Your task to perform on an android device: install app "Pandora - Music & Podcasts" Image 0: 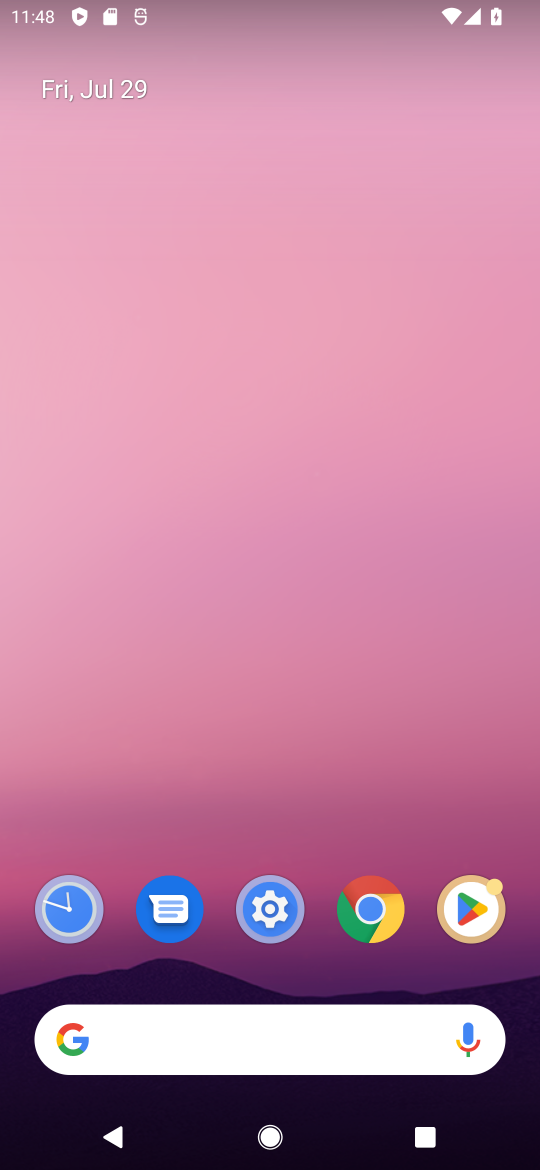
Step 0: drag from (341, 735) to (402, 210)
Your task to perform on an android device: install app "Pandora - Music & Podcasts" Image 1: 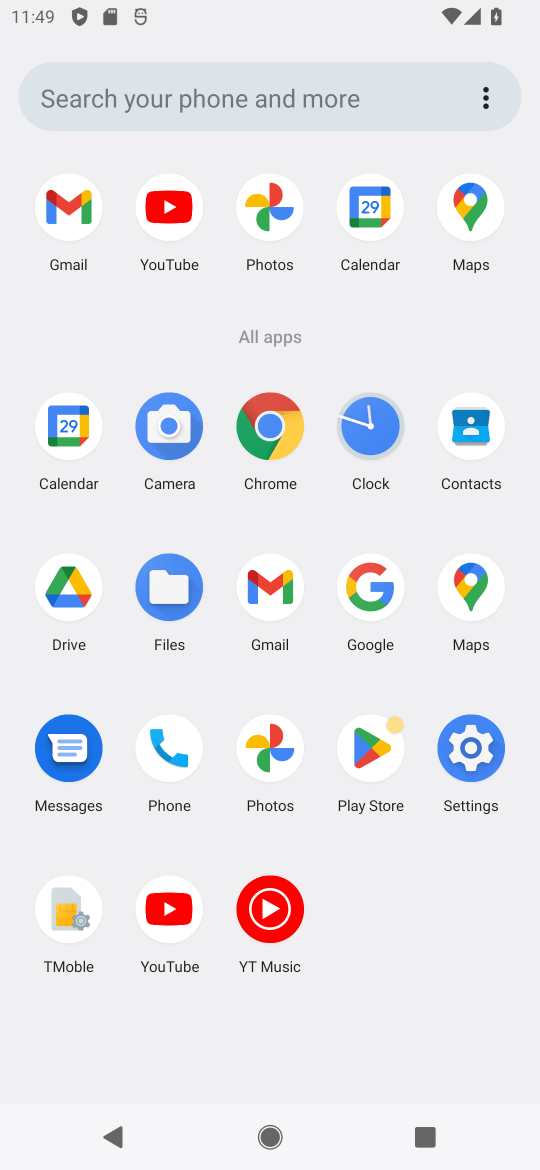
Step 1: click (371, 735)
Your task to perform on an android device: install app "Pandora - Music & Podcasts" Image 2: 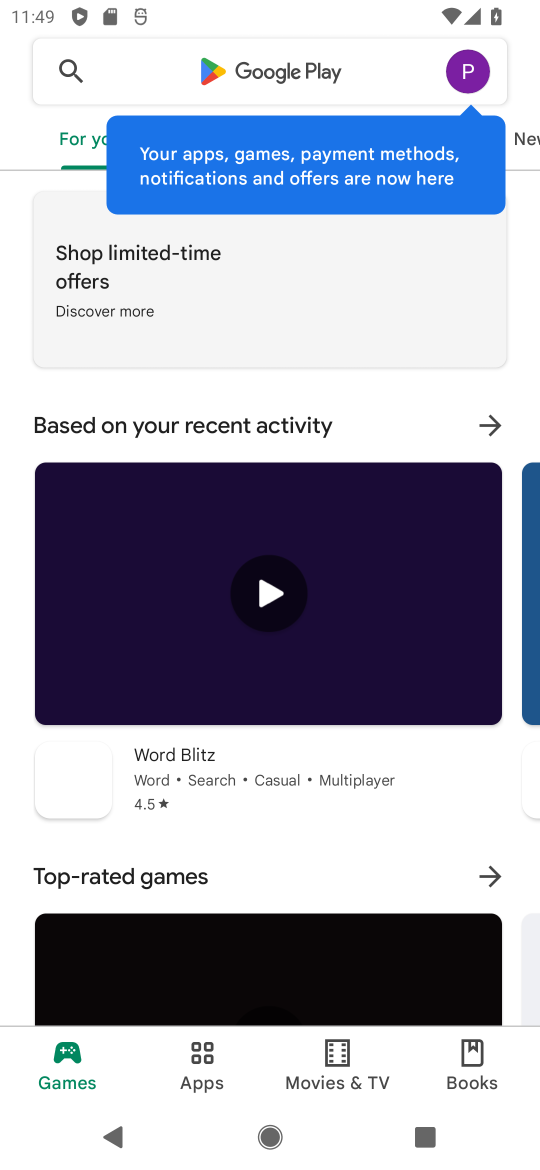
Step 2: click (159, 54)
Your task to perform on an android device: install app "Pandora - Music & Podcasts" Image 3: 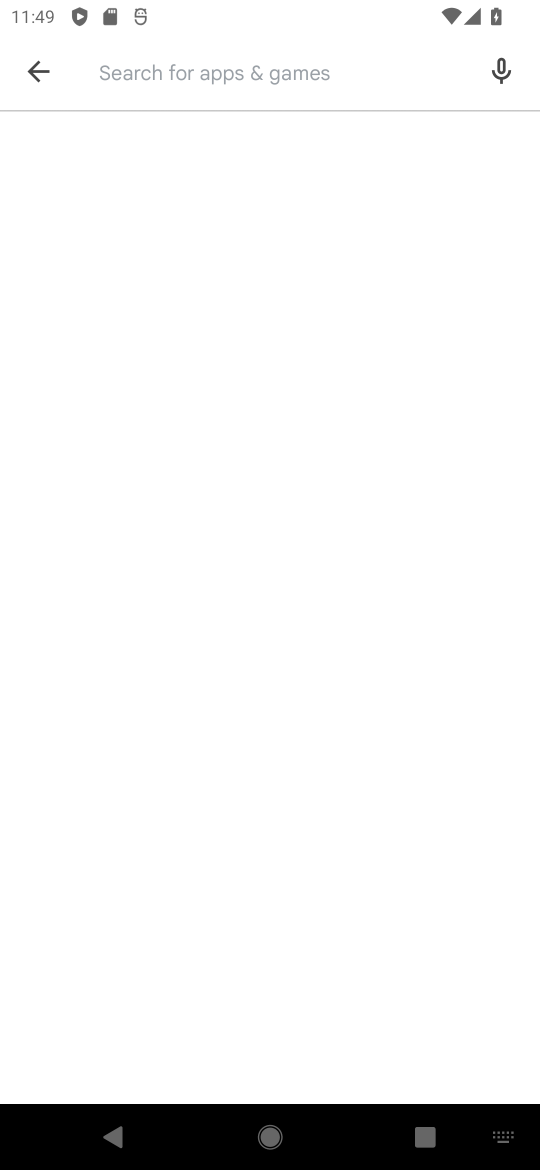
Step 3: type "Pandora - Music & Podcasts"
Your task to perform on an android device: install app "Pandora - Music & Podcasts" Image 4: 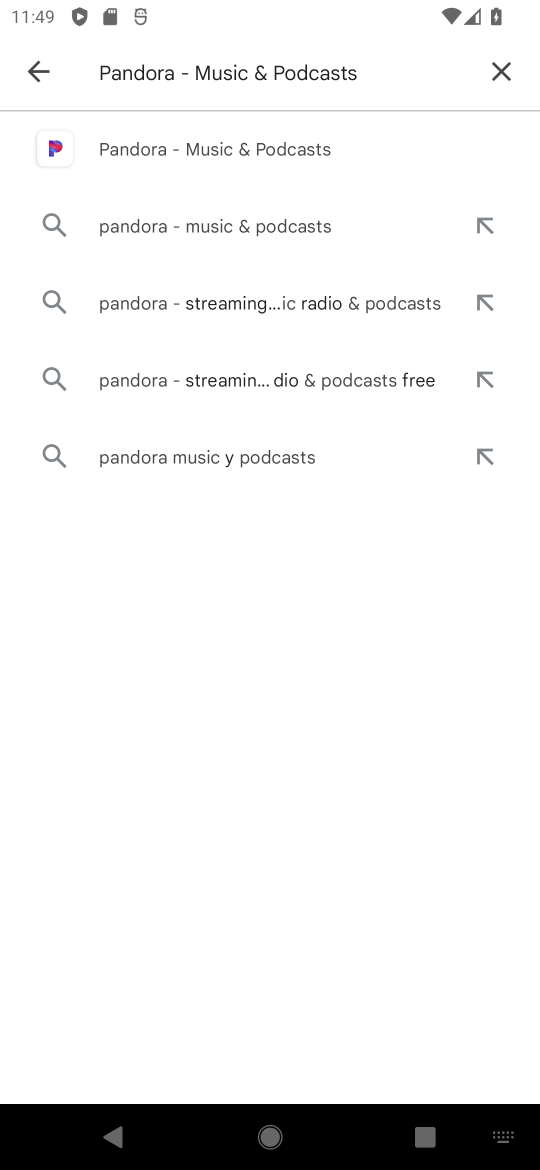
Step 4: click (226, 155)
Your task to perform on an android device: install app "Pandora - Music & Podcasts" Image 5: 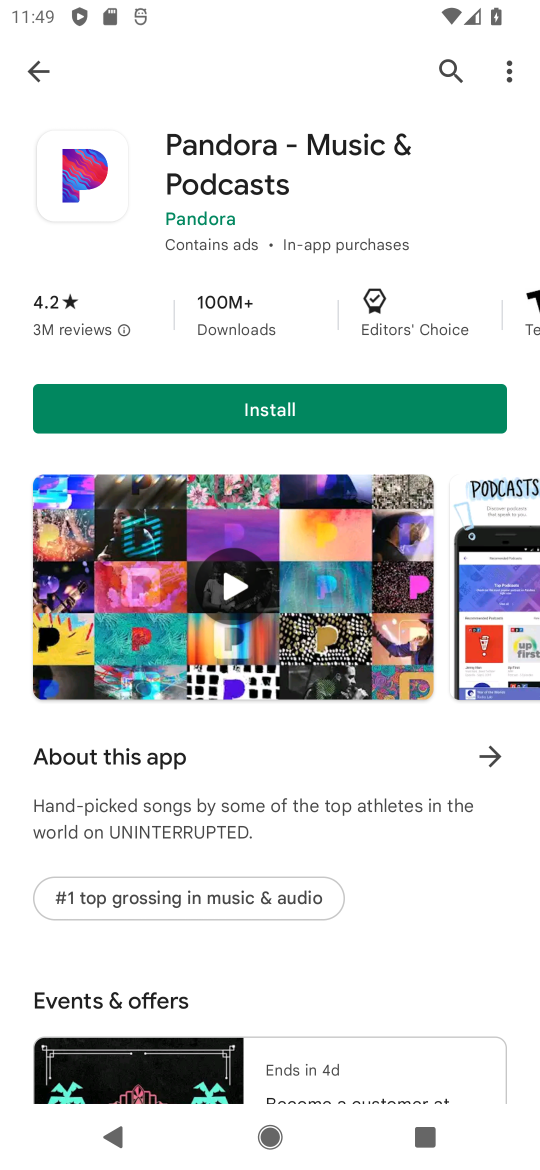
Step 5: click (272, 407)
Your task to perform on an android device: install app "Pandora - Music & Podcasts" Image 6: 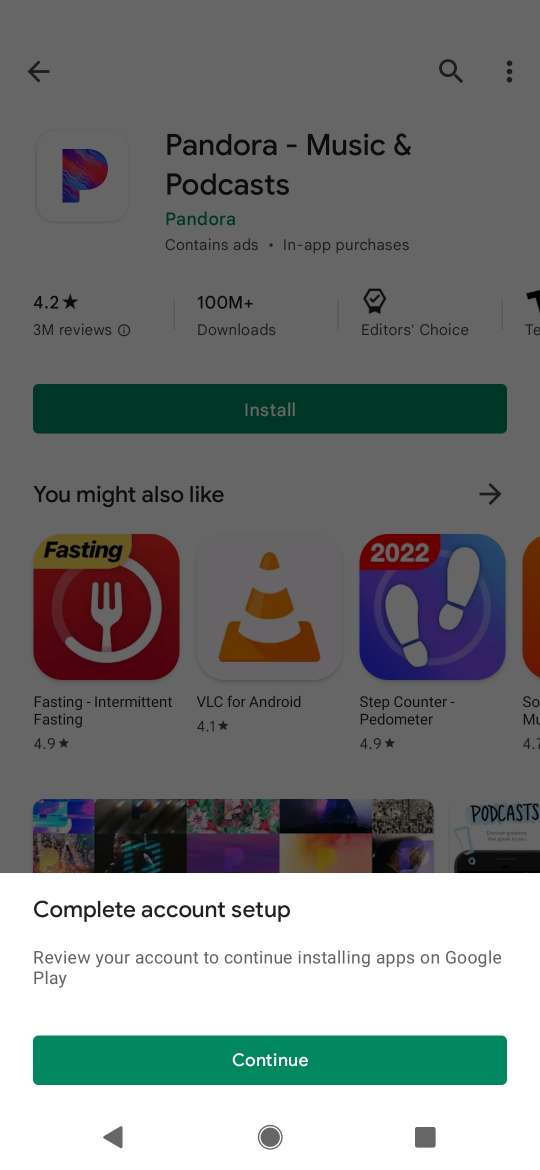
Step 6: click (130, 1054)
Your task to perform on an android device: install app "Pandora - Music & Podcasts" Image 7: 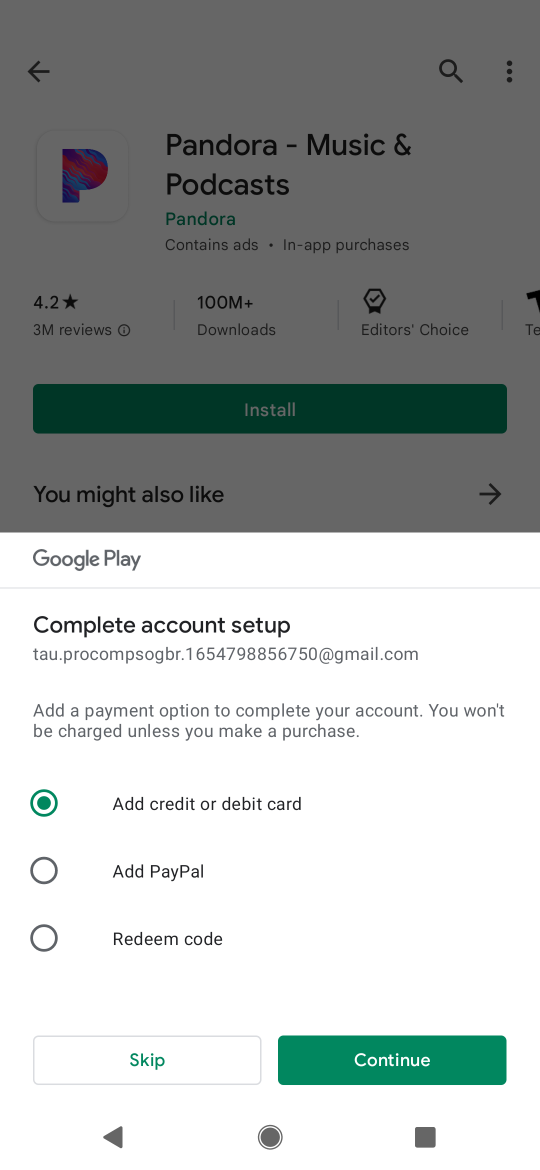
Step 7: click (127, 1064)
Your task to perform on an android device: install app "Pandora - Music & Podcasts" Image 8: 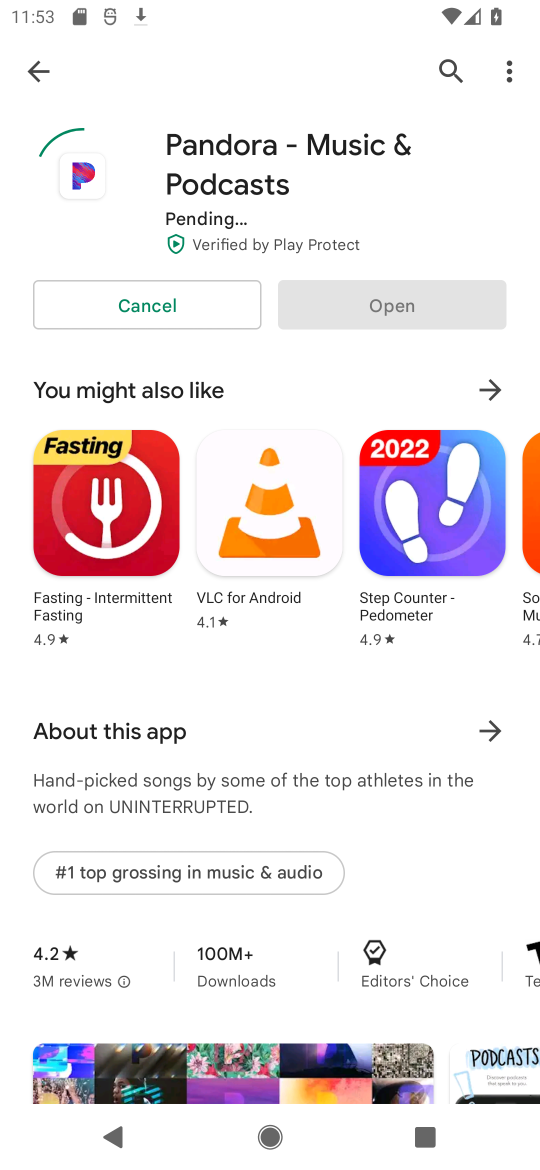
Step 8: task complete